Your task to perform on an android device: Go to ESPN.com Image 0: 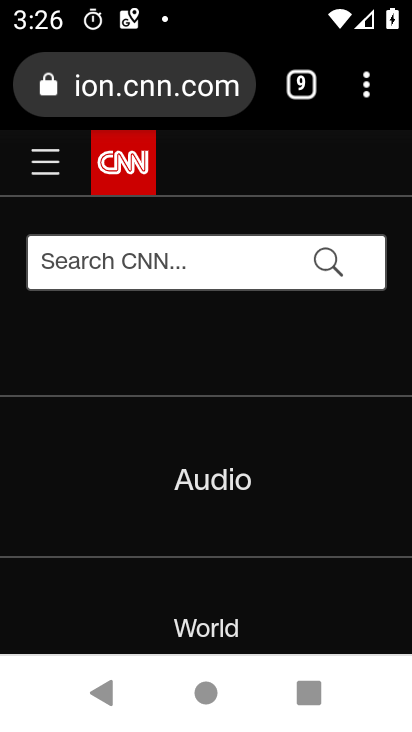
Step 0: press home button
Your task to perform on an android device: Go to ESPN.com Image 1: 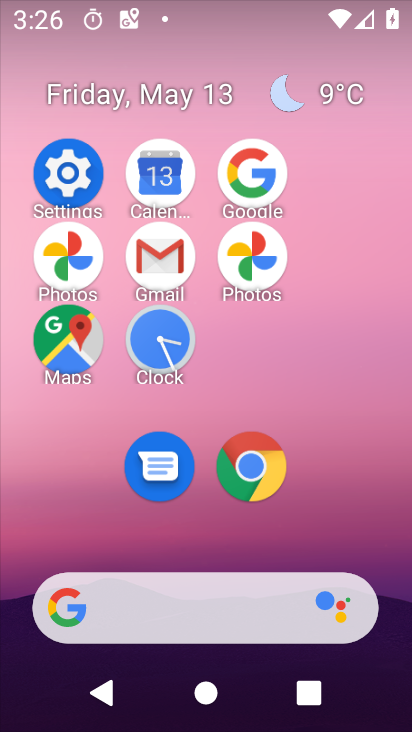
Step 1: click (278, 454)
Your task to perform on an android device: Go to ESPN.com Image 2: 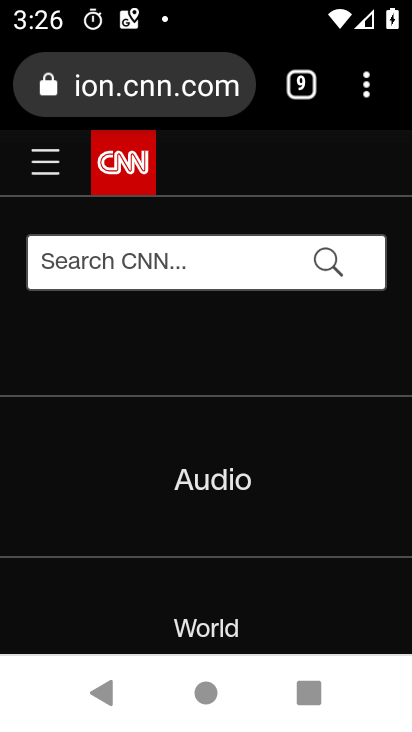
Step 2: click (307, 96)
Your task to perform on an android device: Go to ESPN.com Image 3: 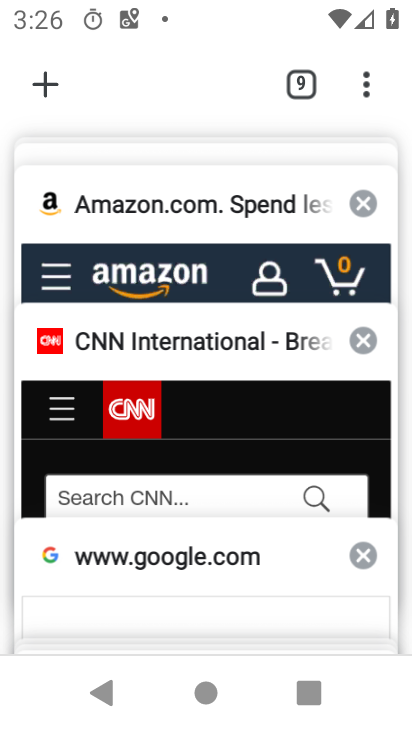
Step 3: drag from (225, 231) to (205, 583)
Your task to perform on an android device: Go to ESPN.com Image 4: 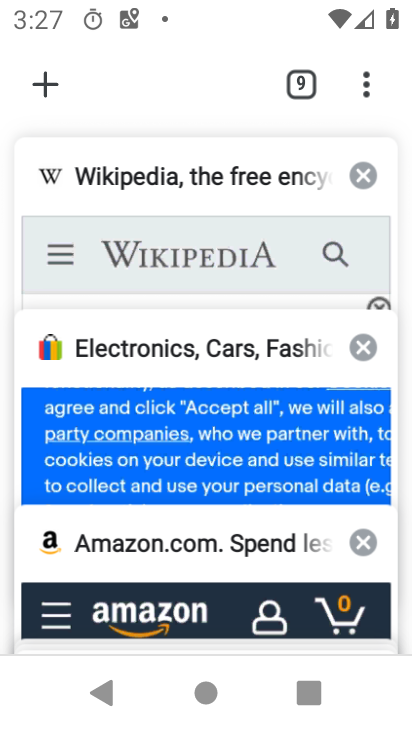
Step 4: drag from (195, 207) to (141, 519)
Your task to perform on an android device: Go to ESPN.com Image 5: 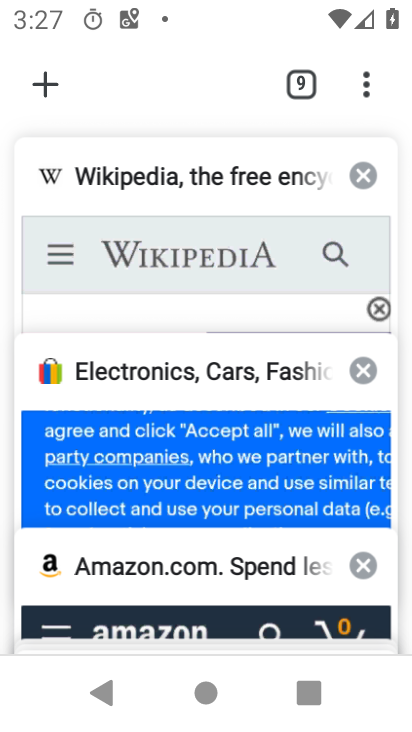
Step 5: drag from (209, 202) to (171, 457)
Your task to perform on an android device: Go to ESPN.com Image 6: 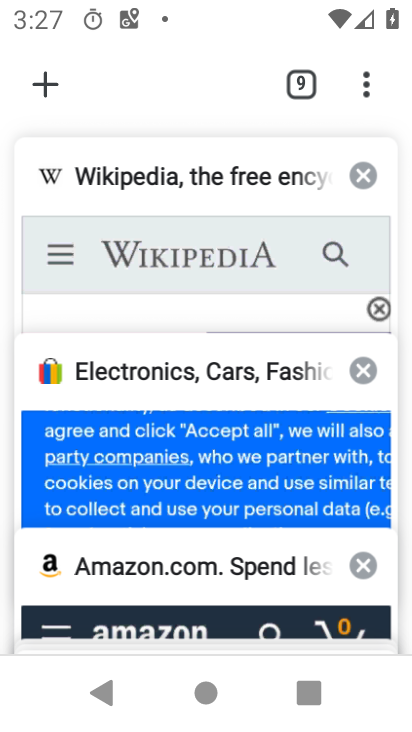
Step 6: drag from (163, 412) to (211, 79)
Your task to perform on an android device: Go to ESPN.com Image 7: 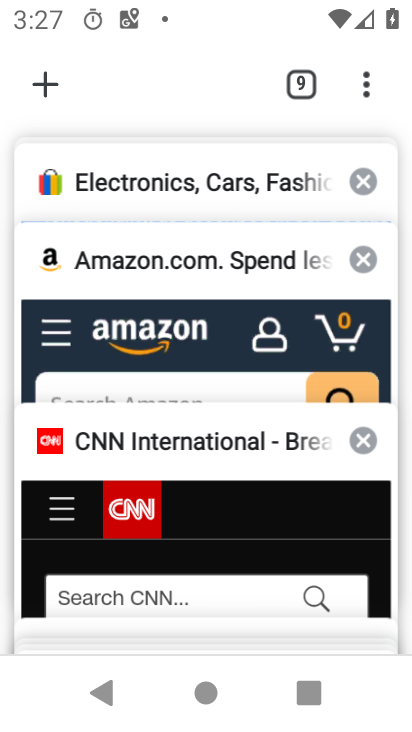
Step 7: click (40, 78)
Your task to perform on an android device: Go to ESPN.com Image 8: 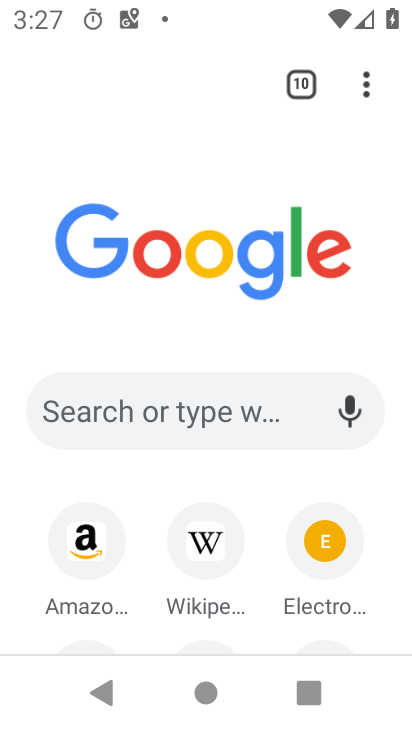
Step 8: drag from (251, 513) to (306, 280)
Your task to perform on an android device: Go to ESPN.com Image 9: 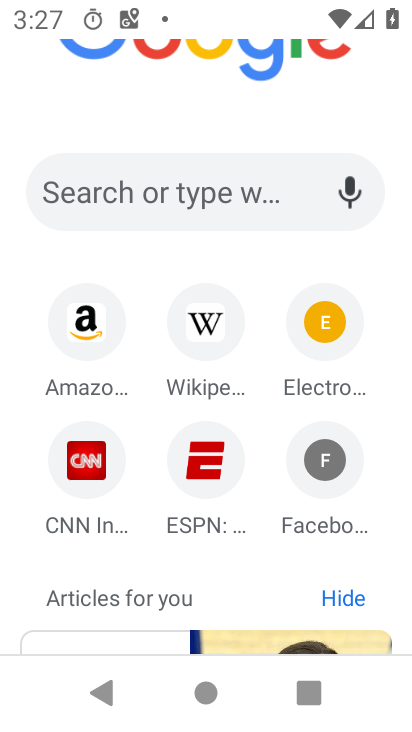
Step 9: click (214, 433)
Your task to perform on an android device: Go to ESPN.com Image 10: 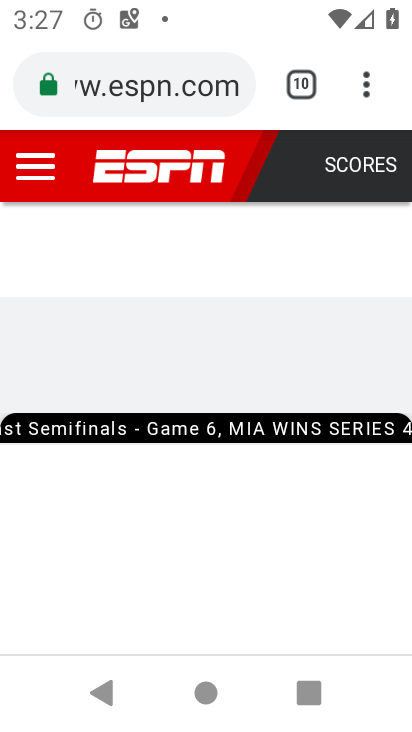
Step 10: task complete